Your task to perform on an android device: change alarm snooze length Image 0: 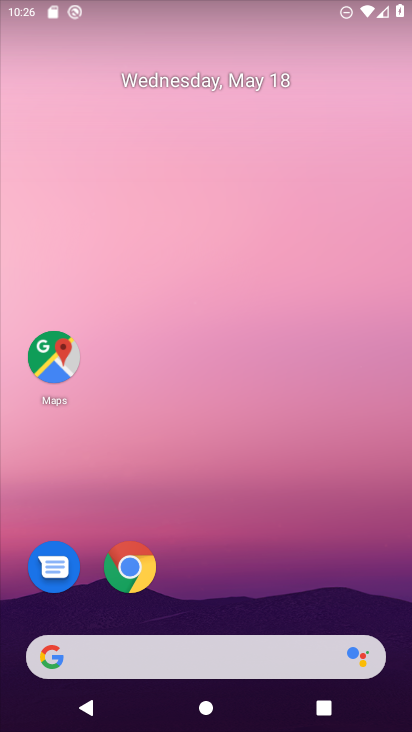
Step 0: drag from (240, 674) to (328, 181)
Your task to perform on an android device: change alarm snooze length Image 1: 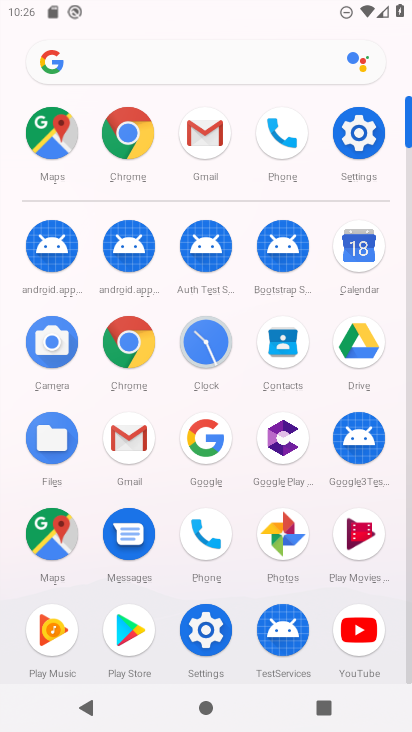
Step 1: click (208, 362)
Your task to perform on an android device: change alarm snooze length Image 2: 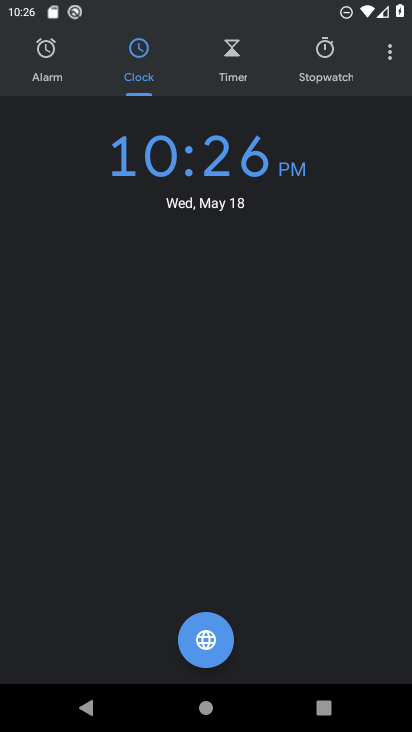
Step 2: click (394, 45)
Your task to perform on an android device: change alarm snooze length Image 3: 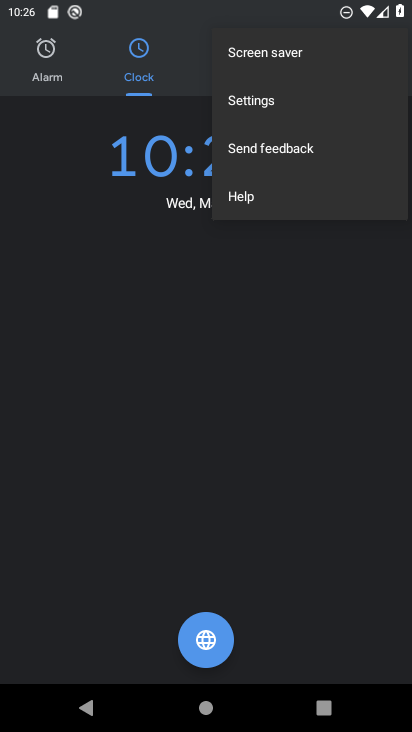
Step 3: click (278, 101)
Your task to perform on an android device: change alarm snooze length Image 4: 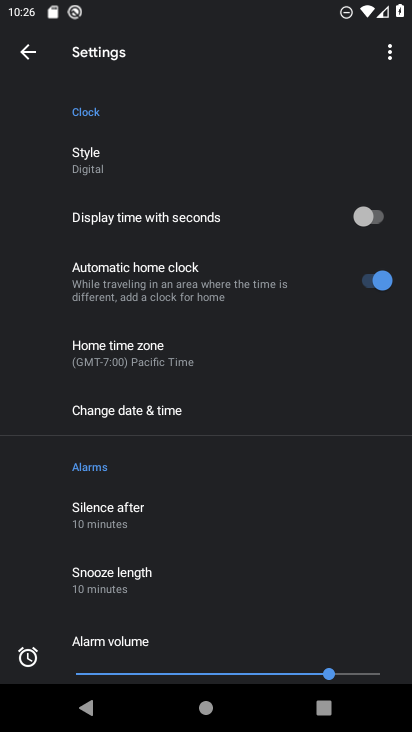
Step 4: click (163, 571)
Your task to perform on an android device: change alarm snooze length Image 5: 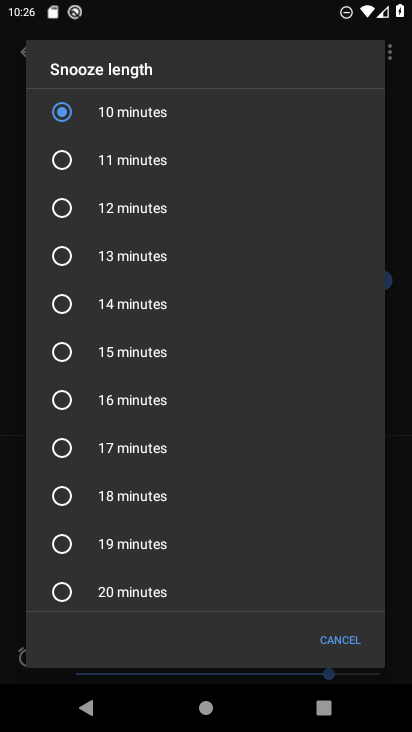
Step 5: click (103, 404)
Your task to perform on an android device: change alarm snooze length Image 6: 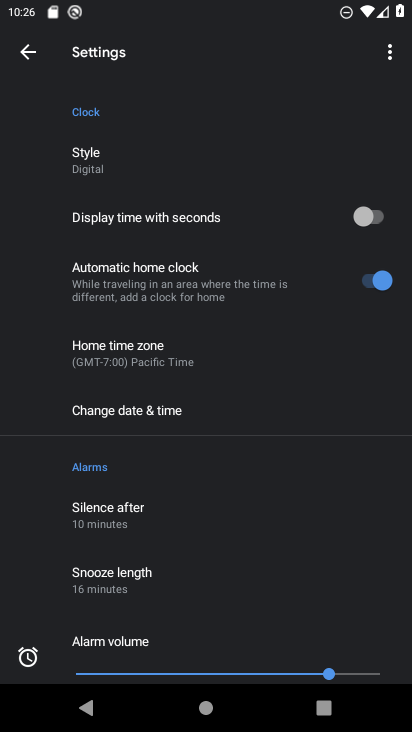
Step 6: task complete